Your task to perform on an android device: turn on airplane mode Image 0: 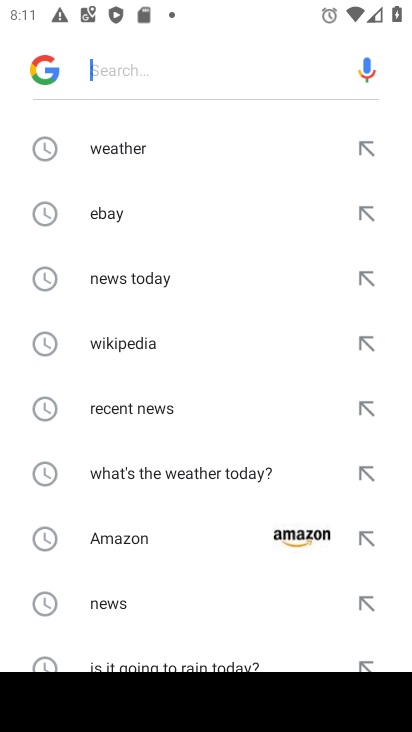
Step 0: press home button
Your task to perform on an android device: turn on airplane mode Image 1: 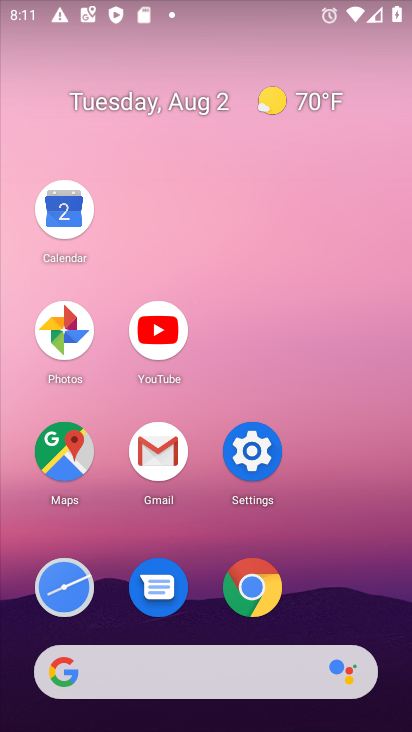
Step 1: click (253, 458)
Your task to perform on an android device: turn on airplane mode Image 2: 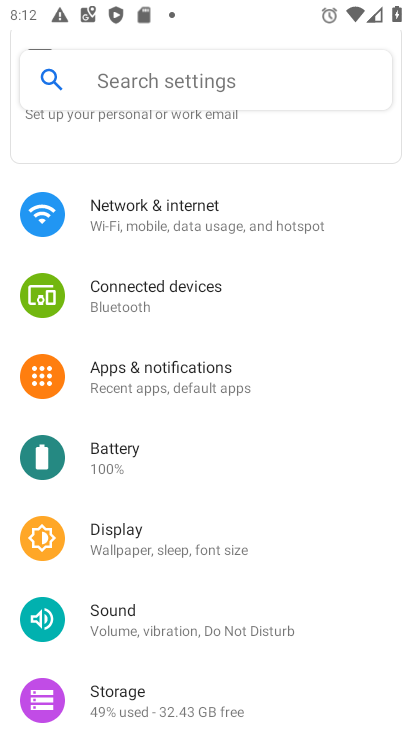
Step 2: click (160, 205)
Your task to perform on an android device: turn on airplane mode Image 3: 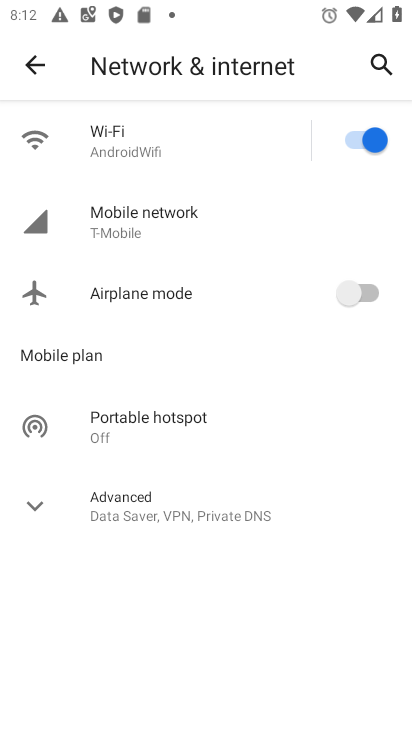
Step 3: click (356, 298)
Your task to perform on an android device: turn on airplane mode Image 4: 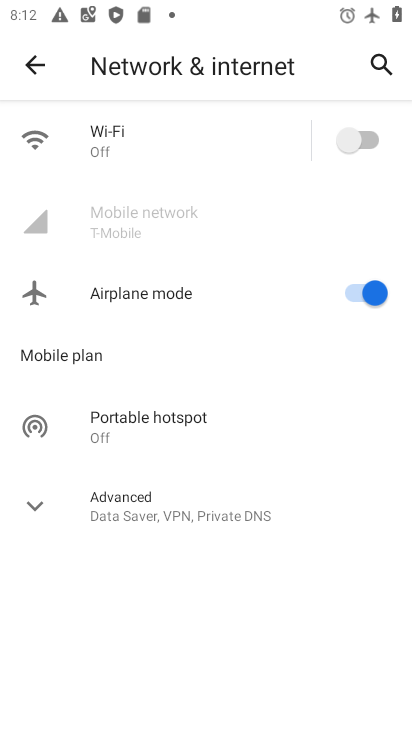
Step 4: task complete